Your task to perform on an android device: Go to battery settings Image 0: 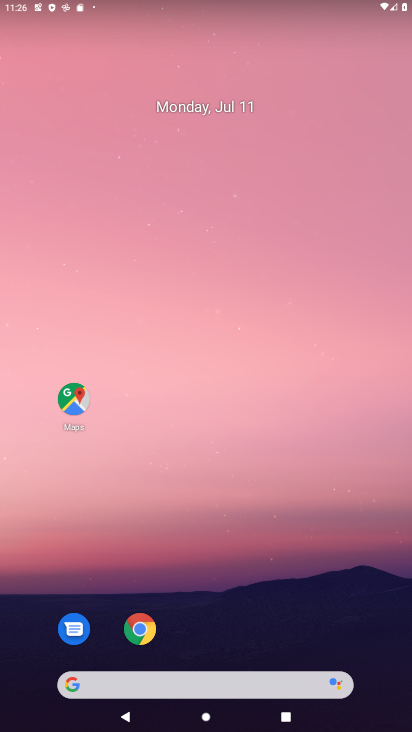
Step 0: drag from (282, 623) to (289, 142)
Your task to perform on an android device: Go to battery settings Image 1: 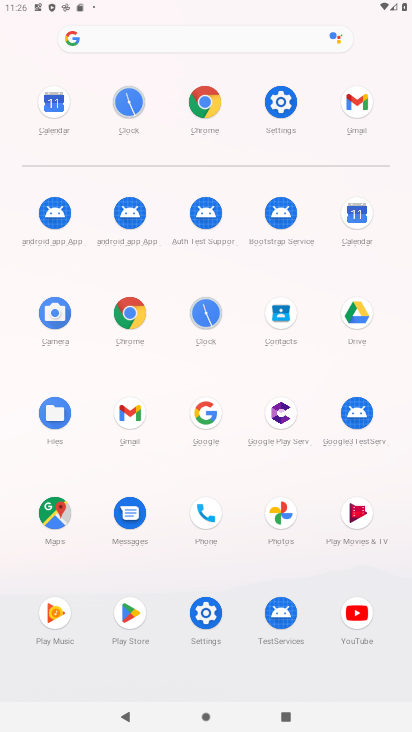
Step 1: click (289, 137)
Your task to perform on an android device: Go to battery settings Image 2: 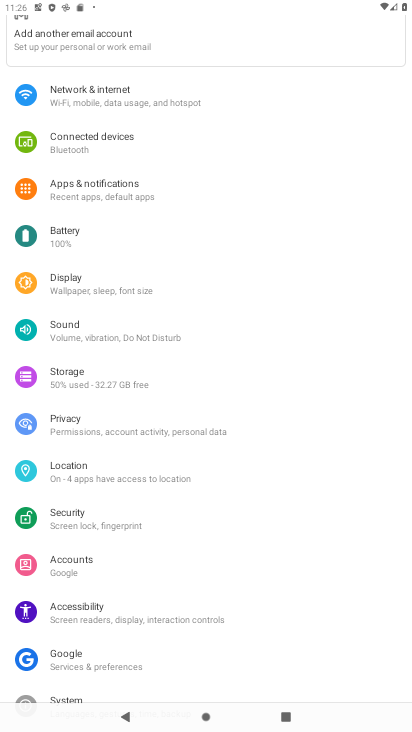
Step 2: click (158, 234)
Your task to perform on an android device: Go to battery settings Image 3: 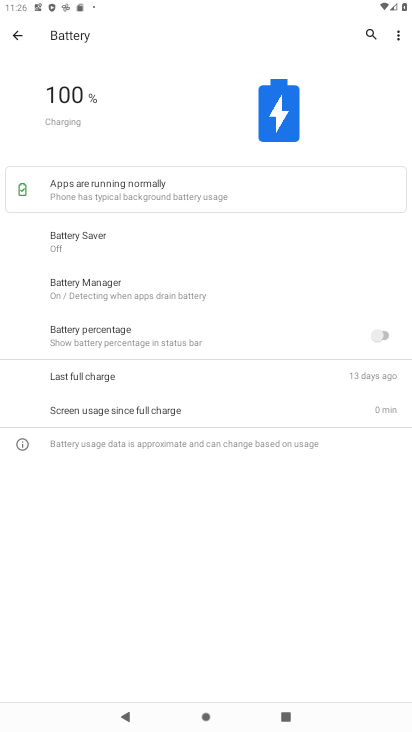
Step 3: task complete